Your task to perform on an android device: toggle notification dots Image 0: 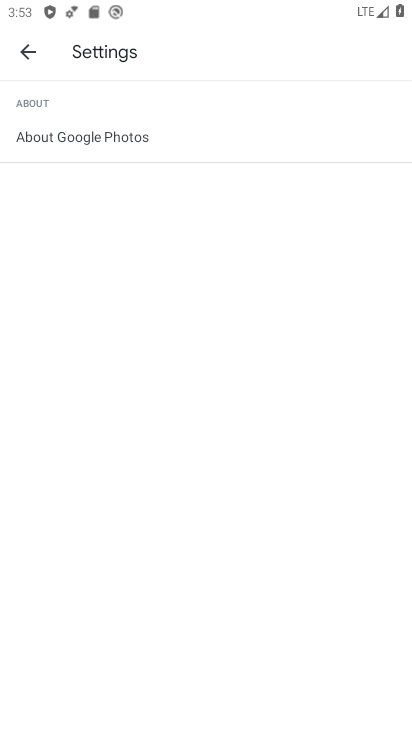
Step 0: press home button
Your task to perform on an android device: toggle notification dots Image 1: 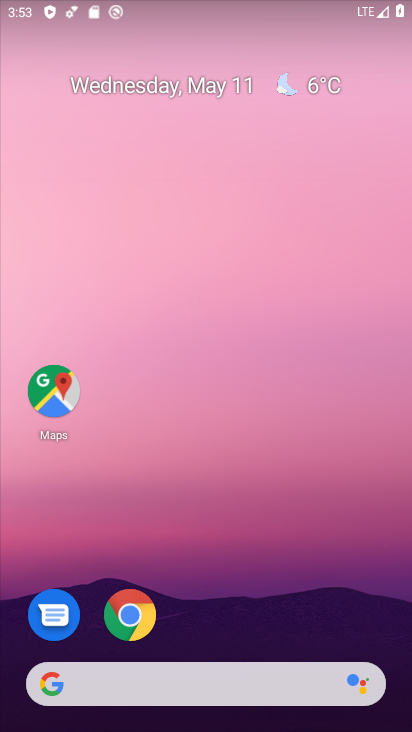
Step 1: drag from (298, 641) to (255, 218)
Your task to perform on an android device: toggle notification dots Image 2: 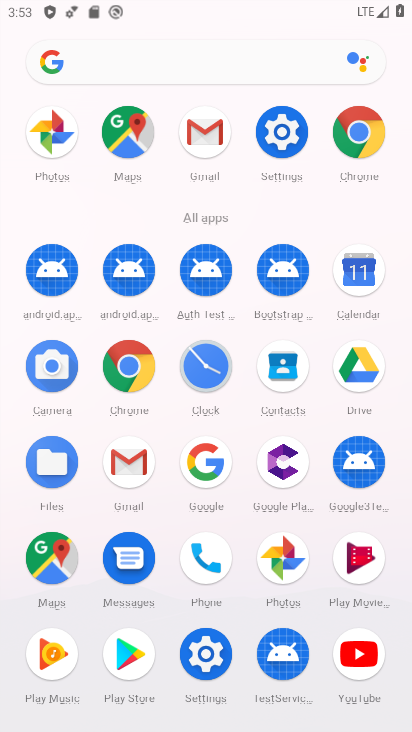
Step 2: click (208, 652)
Your task to perform on an android device: toggle notification dots Image 3: 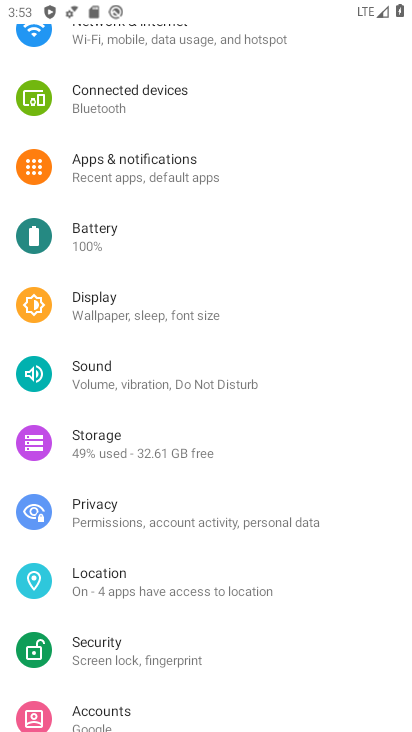
Step 3: click (130, 172)
Your task to perform on an android device: toggle notification dots Image 4: 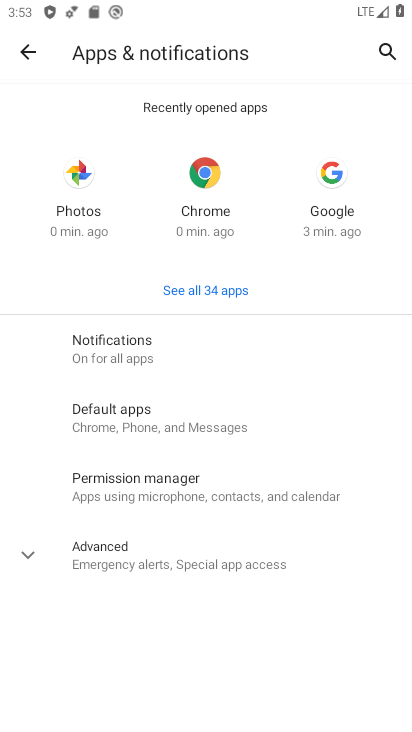
Step 4: click (141, 572)
Your task to perform on an android device: toggle notification dots Image 5: 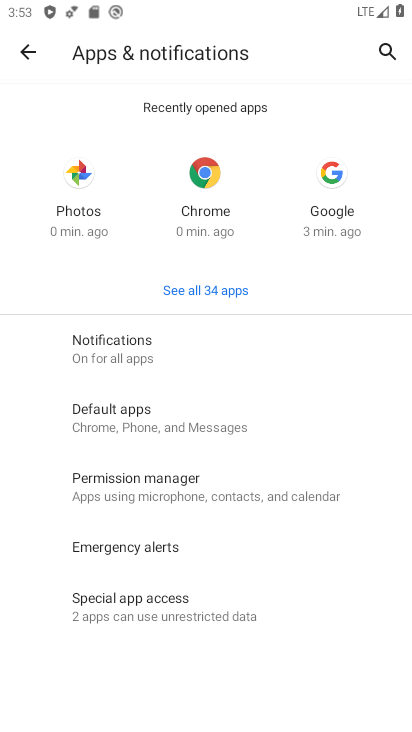
Step 5: click (150, 349)
Your task to perform on an android device: toggle notification dots Image 6: 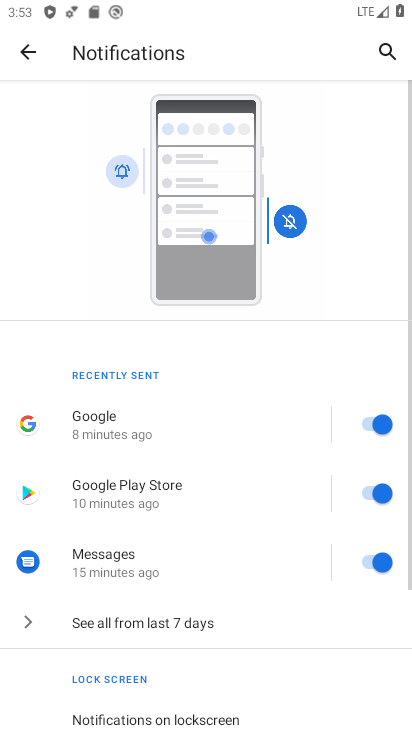
Step 6: drag from (182, 687) to (137, 250)
Your task to perform on an android device: toggle notification dots Image 7: 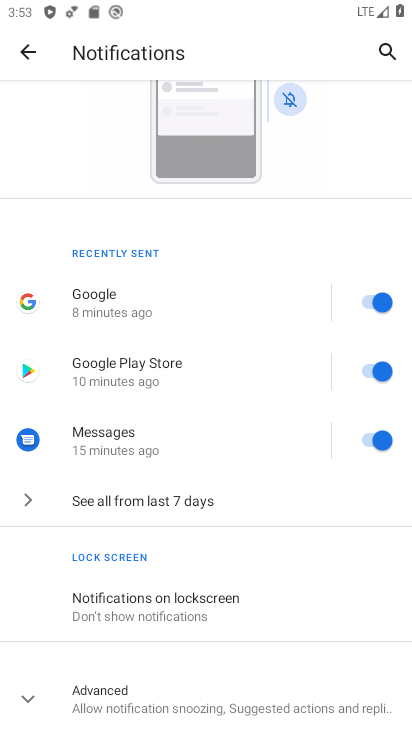
Step 7: click (210, 685)
Your task to perform on an android device: toggle notification dots Image 8: 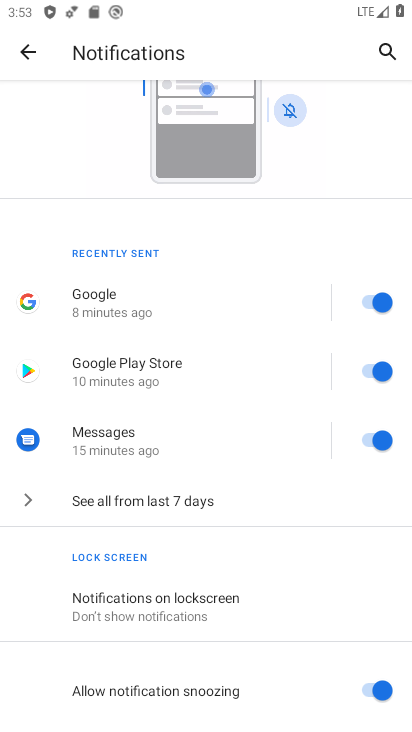
Step 8: drag from (206, 678) to (149, 184)
Your task to perform on an android device: toggle notification dots Image 9: 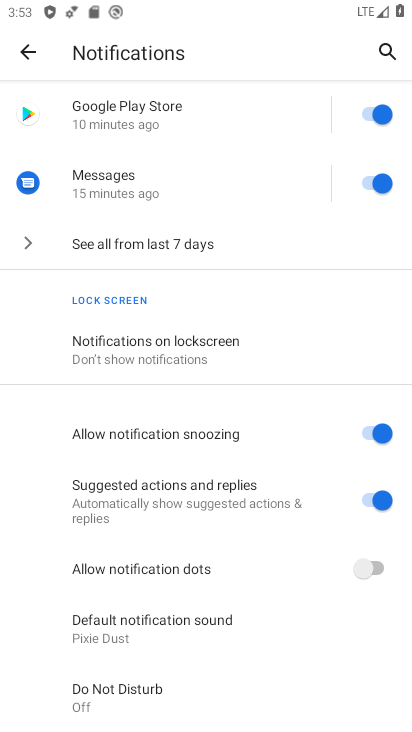
Step 9: click (345, 572)
Your task to perform on an android device: toggle notification dots Image 10: 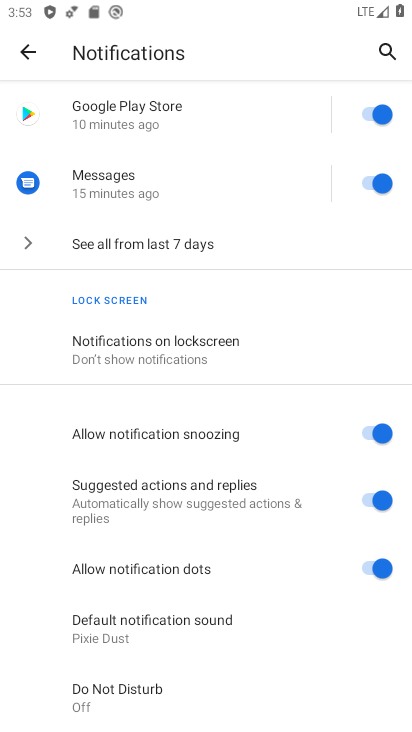
Step 10: task complete